Your task to perform on an android device: Go to Google Image 0: 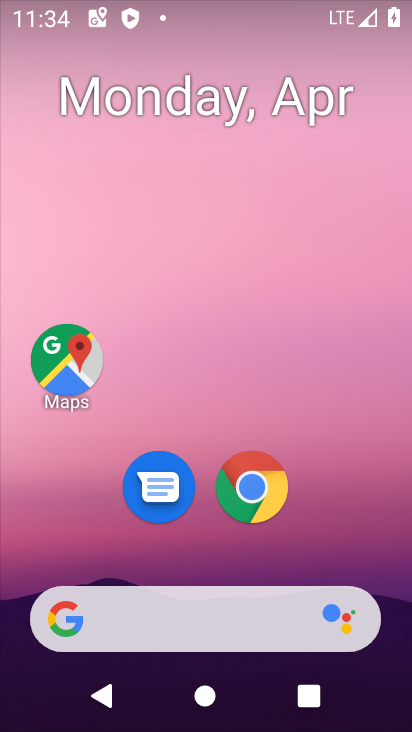
Step 0: drag from (361, 486) to (325, 90)
Your task to perform on an android device: Go to Google Image 1: 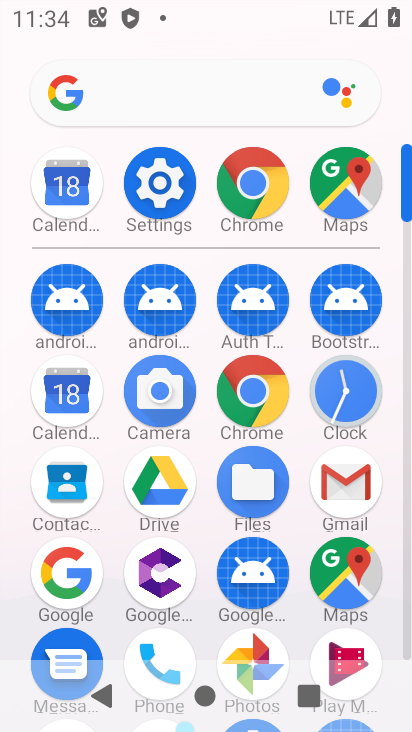
Step 1: click (70, 566)
Your task to perform on an android device: Go to Google Image 2: 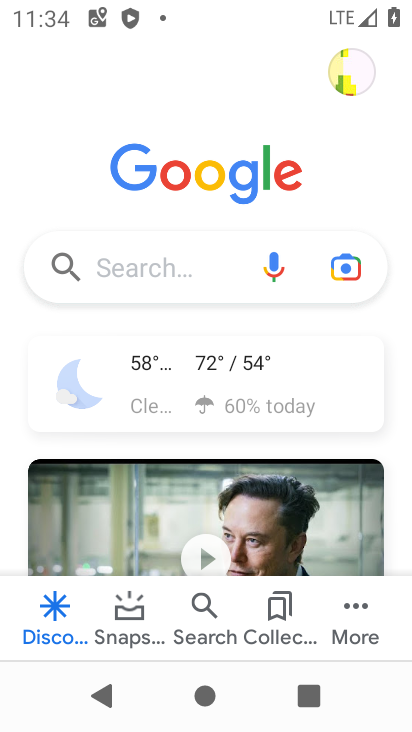
Step 2: task complete